Your task to perform on an android device: Go to settings Image 0: 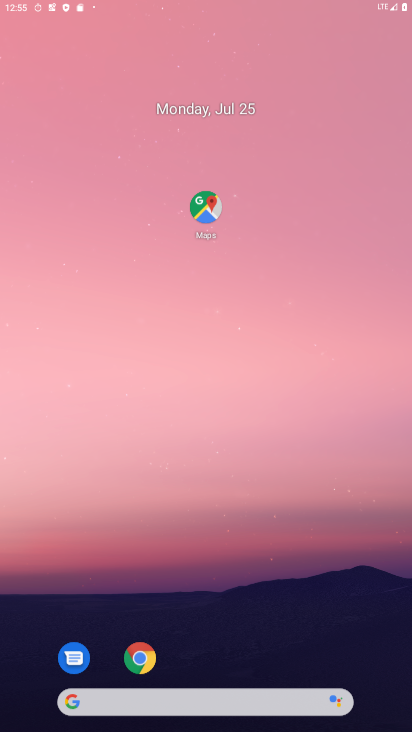
Step 0: click (151, 196)
Your task to perform on an android device: Go to settings Image 1: 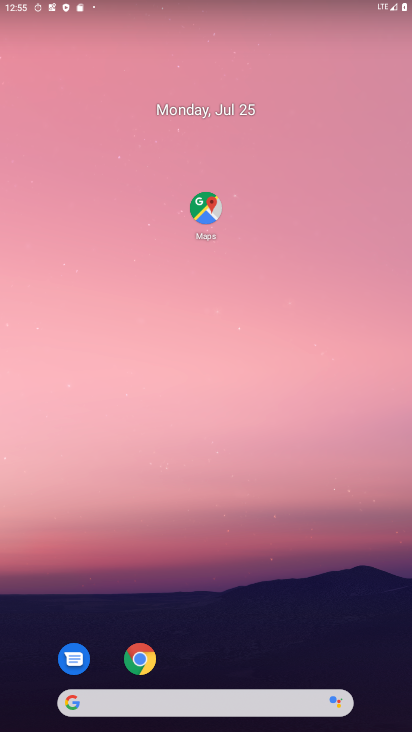
Step 1: drag from (36, 726) to (258, 293)
Your task to perform on an android device: Go to settings Image 2: 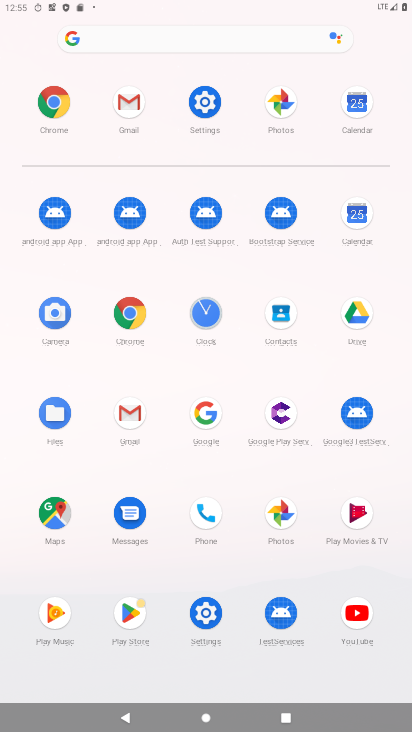
Step 2: click (202, 609)
Your task to perform on an android device: Go to settings Image 3: 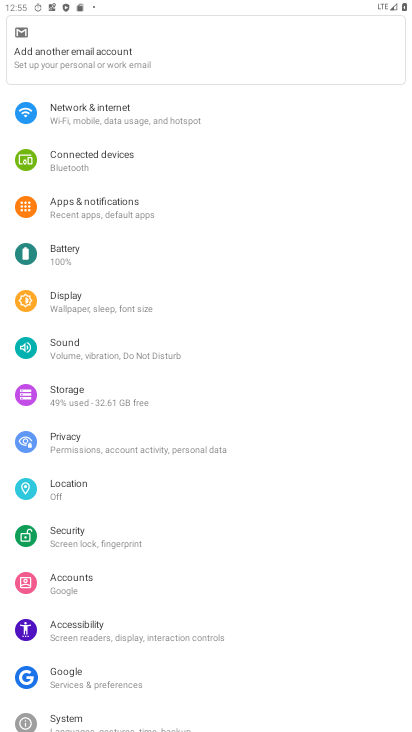
Step 3: task complete